Your task to perform on an android device: empty trash in google photos Image 0: 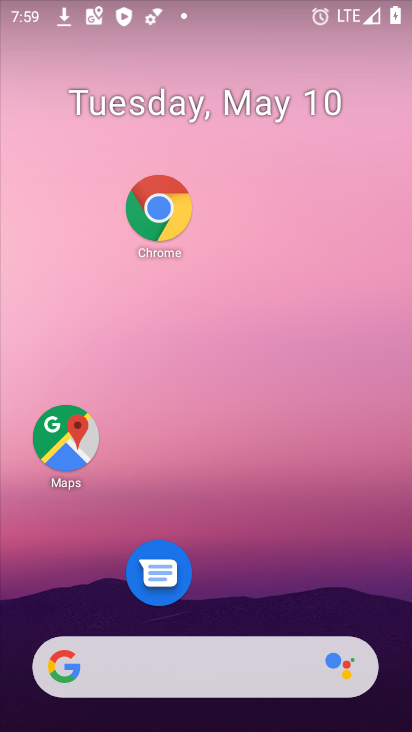
Step 0: drag from (273, 698) to (306, 175)
Your task to perform on an android device: empty trash in google photos Image 1: 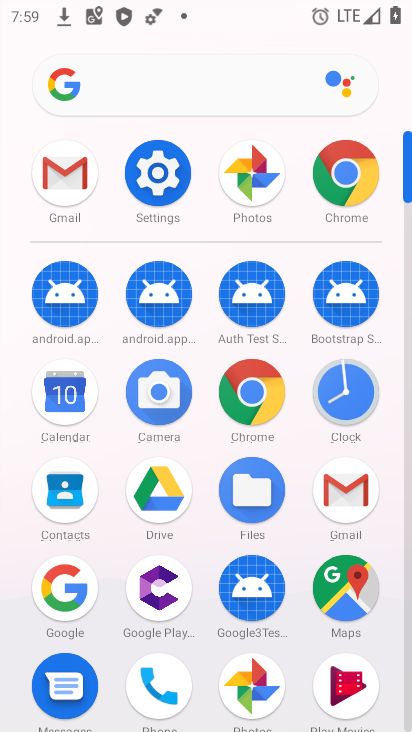
Step 1: click (254, 677)
Your task to perform on an android device: empty trash in google photos Image 2: 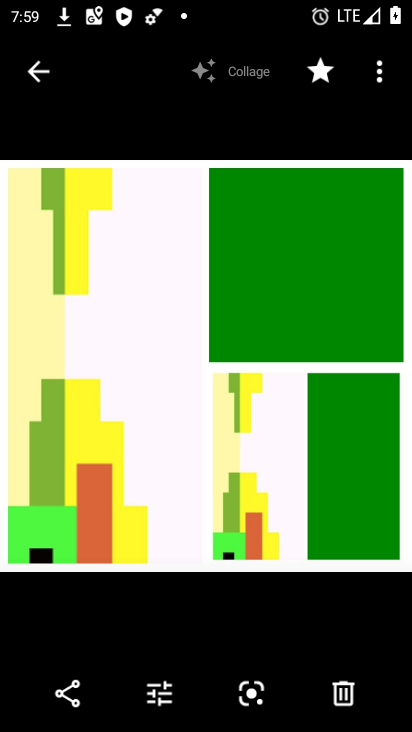
Step 2: click (28, 82)
Your task to perform on an android device: empty trash in google photos Image 3: 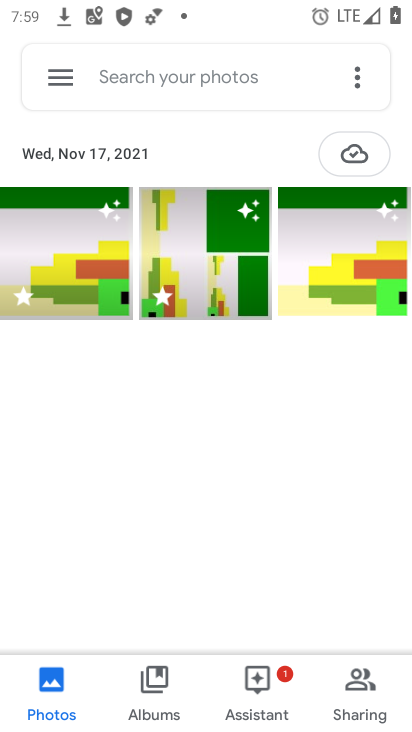
Step 3: click (50, 78)
Your task to perform on an android device: empty trash in google photos Image 4: 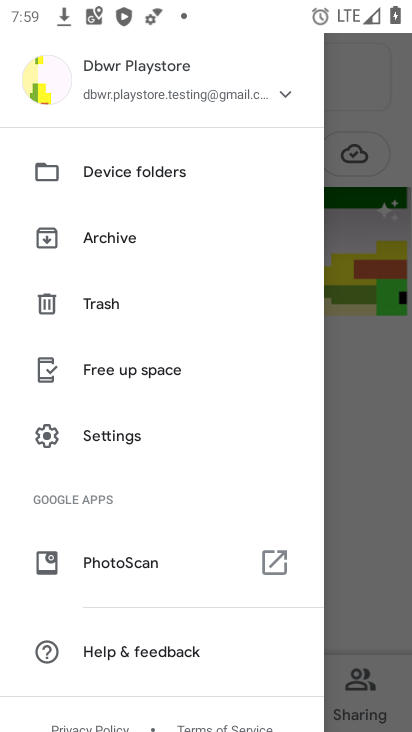
Step 4: click (94, 302)
Your task to perform on an android device: empty trash in google photos Image 5: 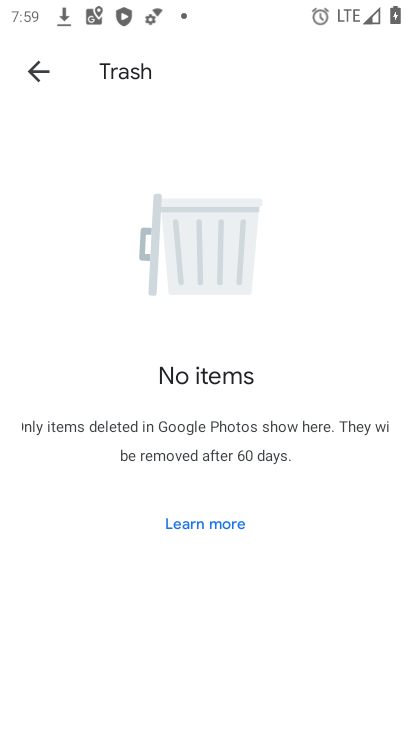
Step 5: task complete